Your task to perform on an android device: Clear the cart on newegg. Image 0: 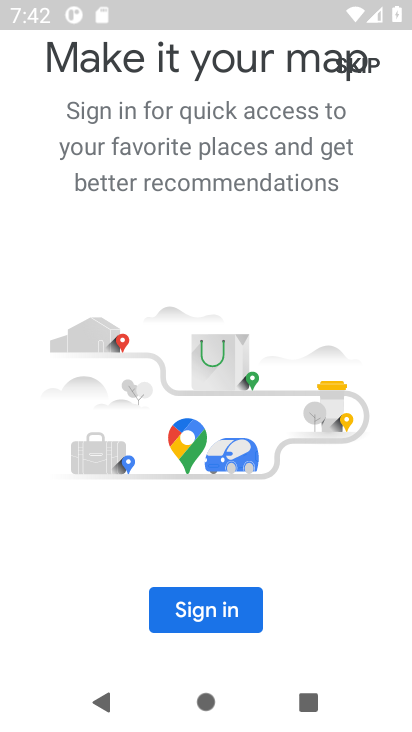
Step 0: click (209, 706)
Your task to perform on an android device: Clear the cart on newegg. Image 1: 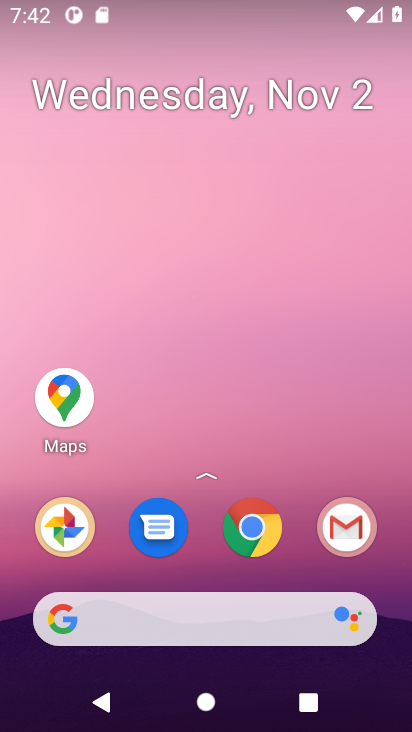
Step 1: click (257, 546)
Your task to perform on an android device: Clear the cart on newegg. Image 2: 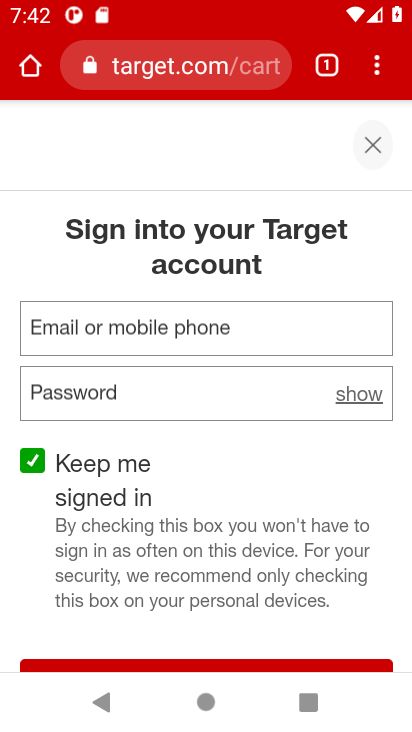
Step 2: click (191, 63)
Your task to perform on an android device: Clear the cart on newegg. Image 3: 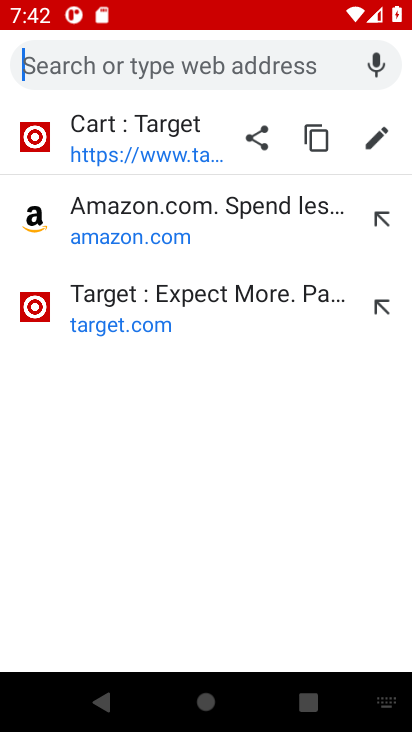
Step 3: type "newegg"
Your task to perform on an android device: Clear the cart on newegg. Image 4: 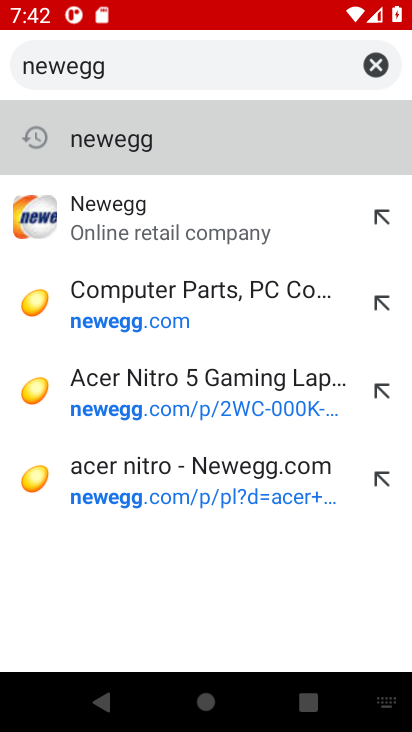
Step 4: click (197, 147)
Your task to perform on an android device: Clear the cart on newegg. Image 5: 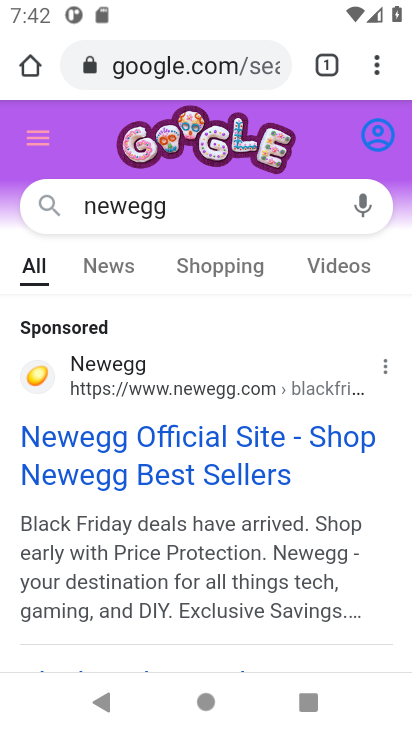
Step 5: click (105, 444)
Your task to perform on an android device: Clear the cart on newegg. Image 6: 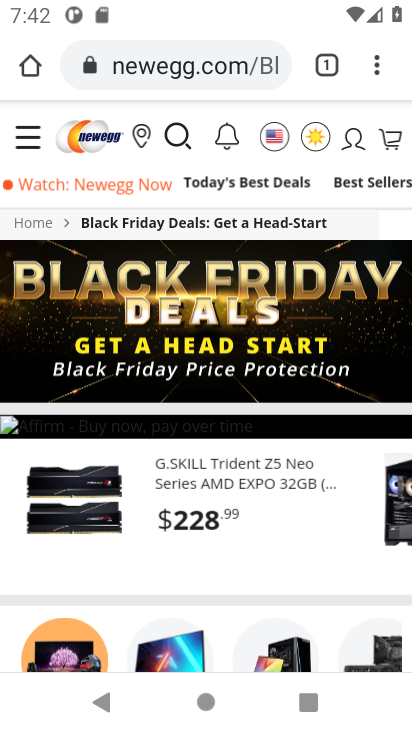
Step 6: click (178, 586)
Your task to perform on an android device: Clear the cart on newegg. Image 7: 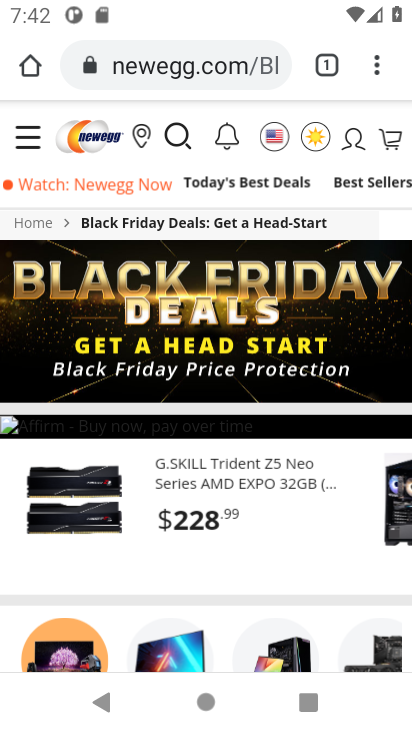
Step 7: click (392, 141)
Your task to perform on an android device: Clear the cart on newegg. Image 8: 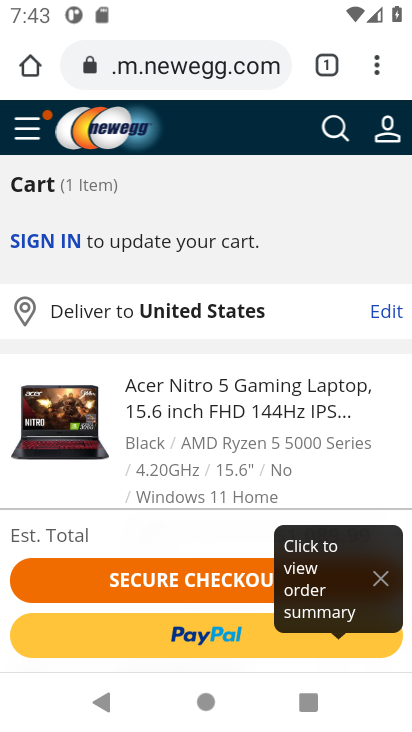
Step 8: drag from (187, 355) to (162, 97)
Your task to perform on an android device: Clear the cart on newegg. Image 9: 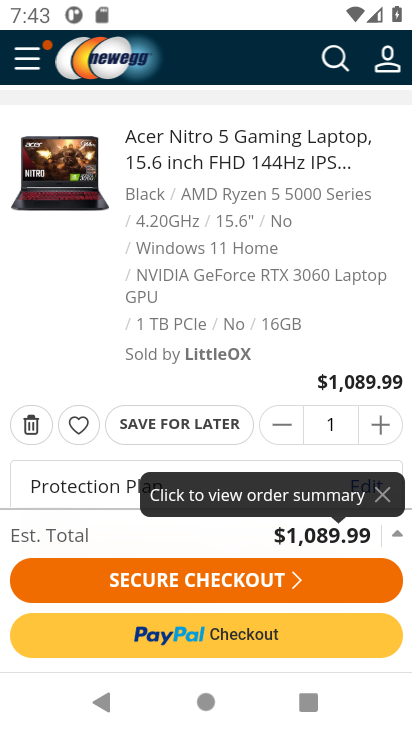
Step 9: click (278, 423)
Your task to perform on an android device: Clear the cart on newegg. Image 10: 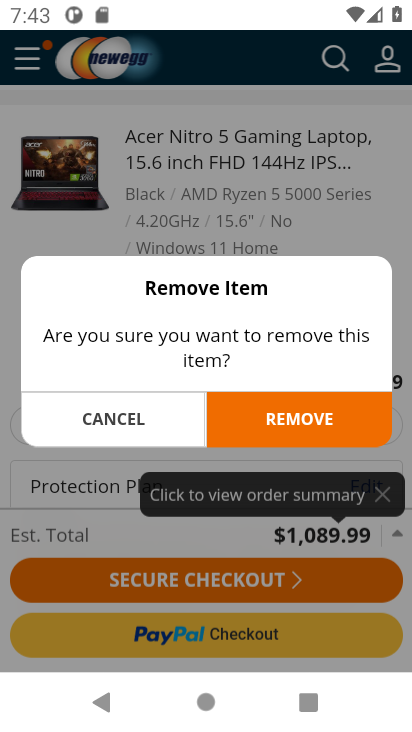
Step 10: click (276, 424)
Your task to perform on an android device: Clear the cart on newegg. Image 11: 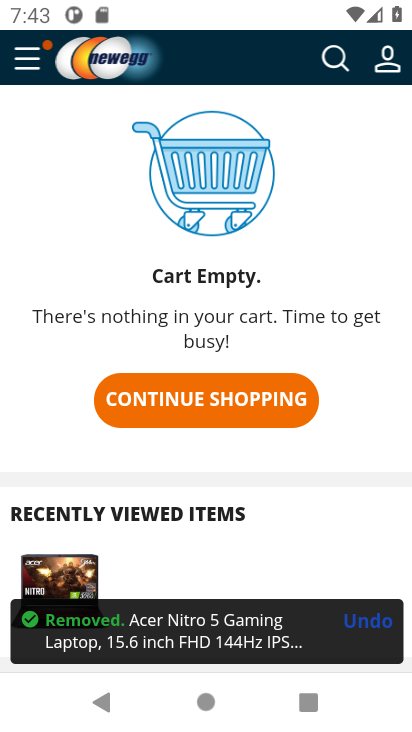
Step 11: task complete